Your task to perform on an android device: Show me productivity apps on the Play Store Image 0: 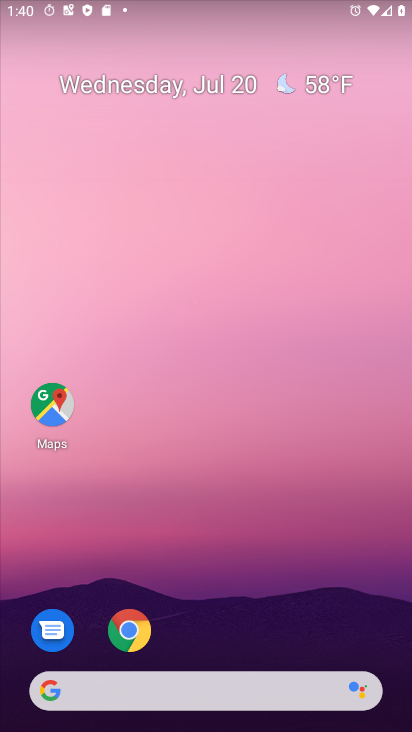
Step 0: press home button
Your task to perform on an android device: Show me productivity apps on the Play Store Image 1: 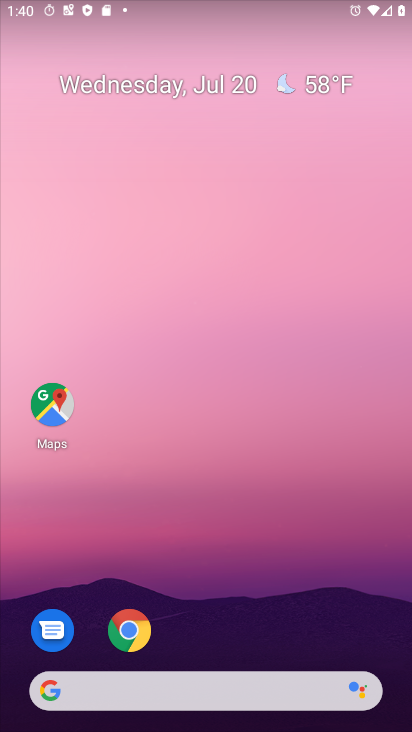
Step 1: drag from (184, 692) to (341, 181)
Your task to perform on an android device: Show me productivity apps on the Play Store Image 2: 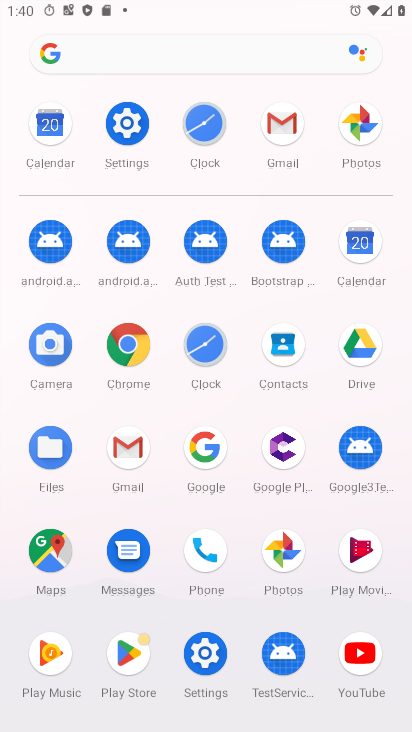
Step 2: click (139, 655)
Your task to perform on an android device: Show me productivity apps on the Play Store Image 3: 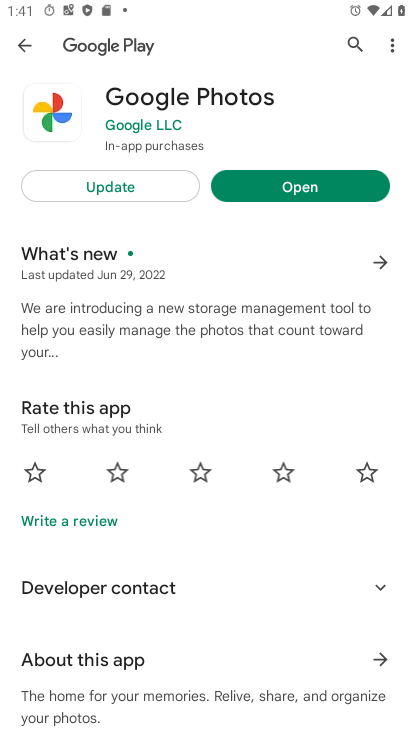
Step 3: click (29, 52)
Your task to perform on an android device: Show me productivity apps on the Play Store Image 4: 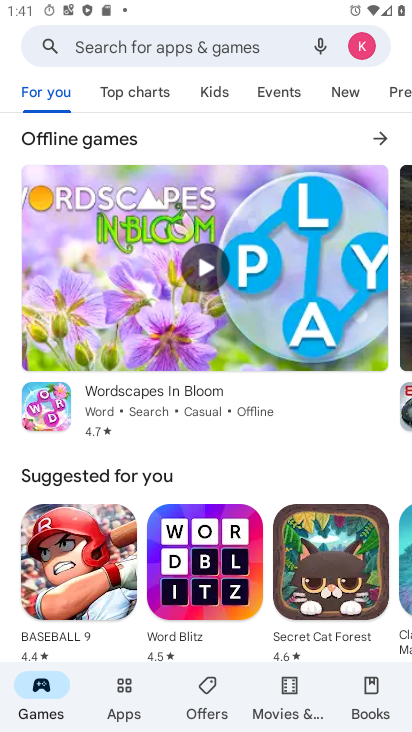
Step 4: click (124, 697)
Your task to perform on an android device: Show me productivity apps on the Play Store Image 5: 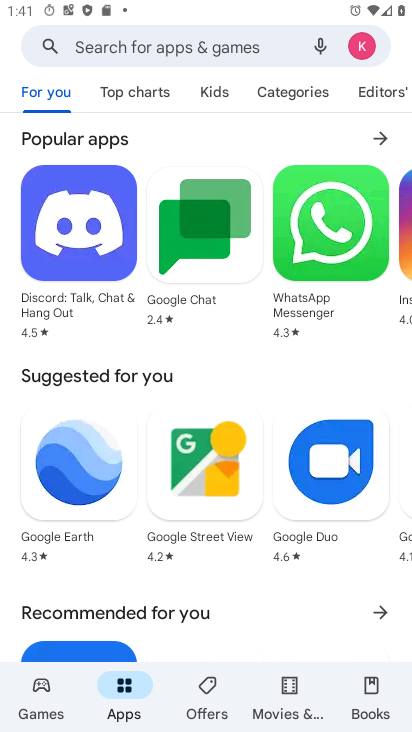
Step 5: click (311, 90)
Your task to perform on an android device: Show me productivity apps on the Play Store Image 6: 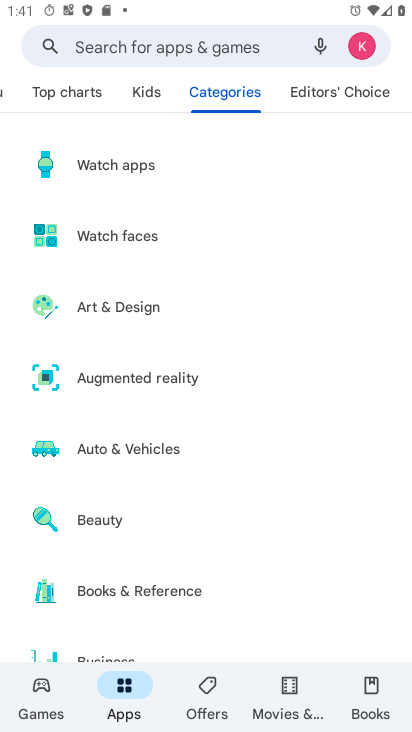
Step 6: drag from (247, 611) to (350, 78)
Your task to perform on an android device: Show me productivity apps on the Play Store Image 7: 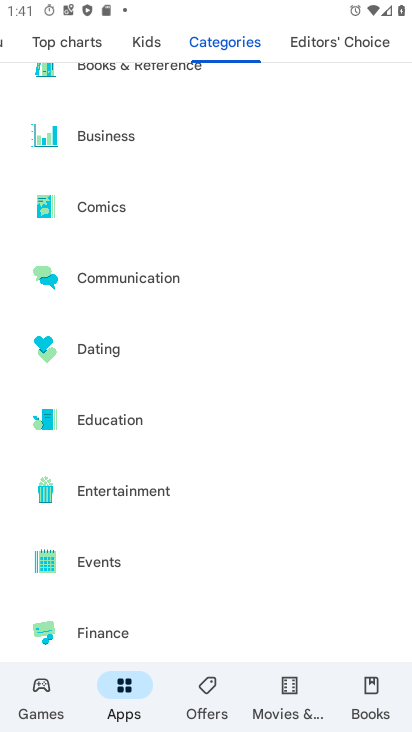
Step 7: drag from (217, 547) to (288, 15)
Your task to perform on an android device: Show me productivity apps on the Play Store Image 8: 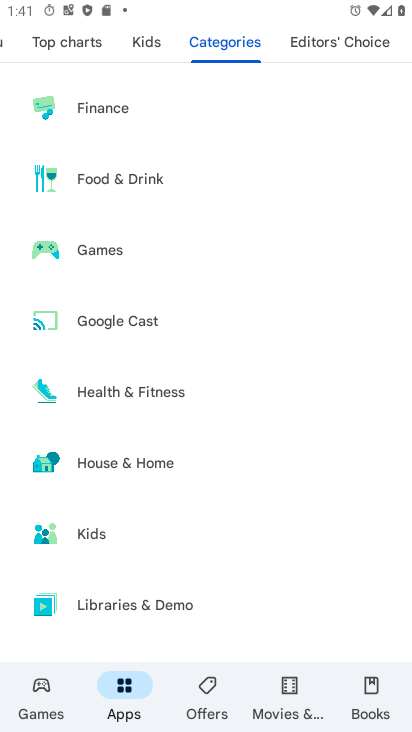
Step 8: drag from (228, 547) to (273, 154)
Your task to perform on an android device: Show me productivity apps on the Play Store Image 9: 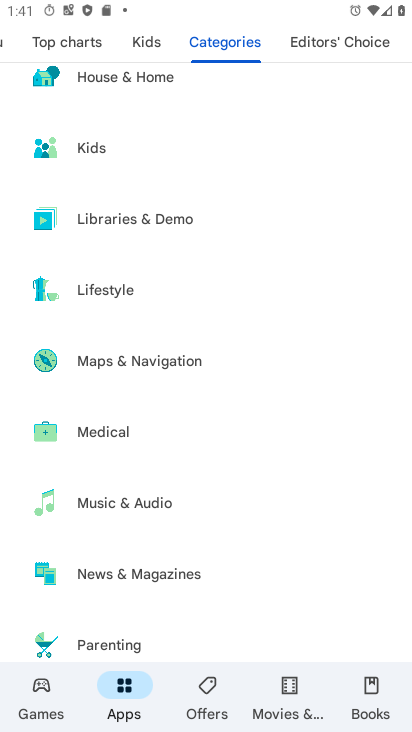
Step 9: drag from (226, 588) to (261, 207)
Your task to perform on an android device: Show me productivity apps on the Play Store Image 10: 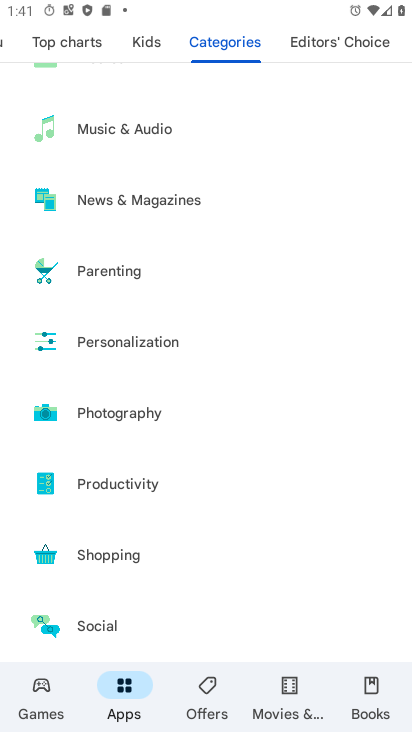
Step 10: click (142, 481)
Your task to perform on an android device: Show me productivity apps on the Play Store Image 11: 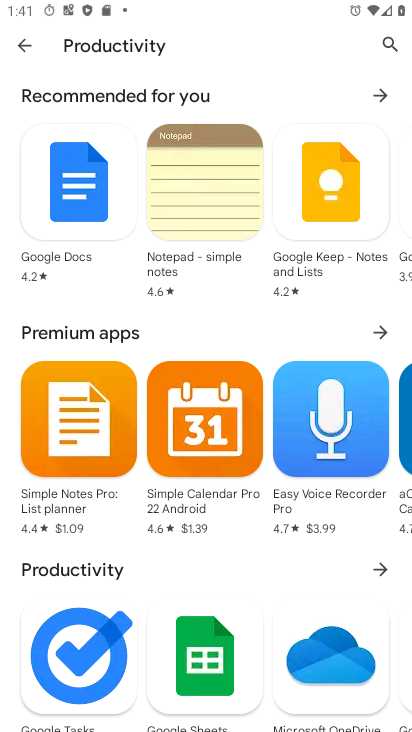
Step 11: task complete